Your task to perform on an android device: open a bookmark in the chrome app Image 0: 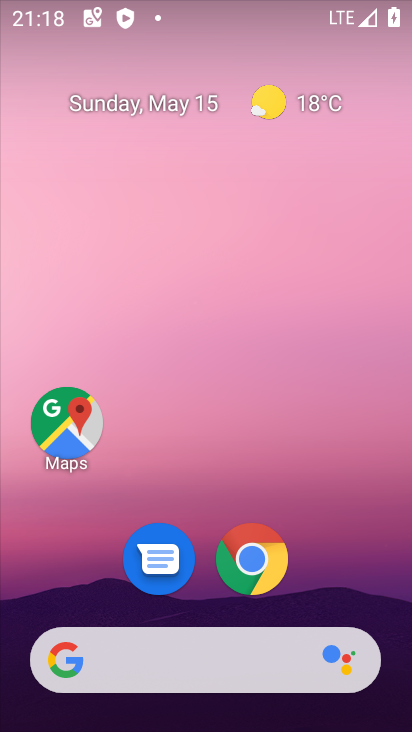
Step 0: click (249, 557)
Your task to perform on an android device: open a bookmark in the chrome app Image 1: 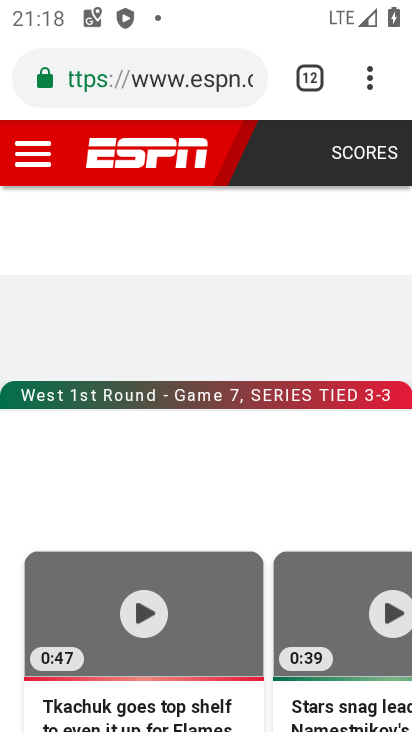
Step 1: click (369, 84)
Your task to perform on an android device: open a bookmark in the chrome app Image 2: 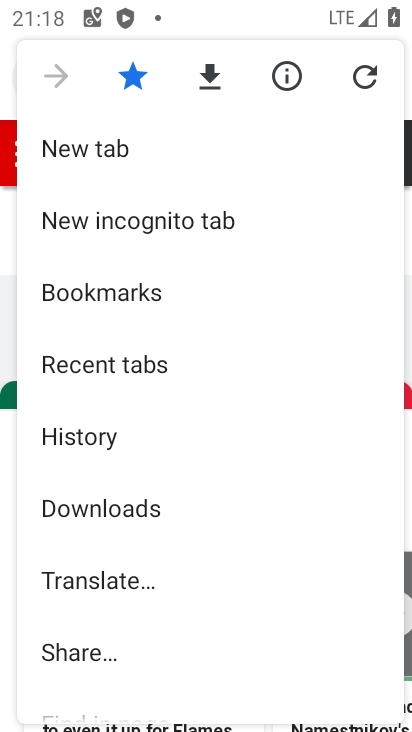
Step 2: click (152, 289)
Your task to perform on an android device: open a bookmark in the chrome app Image 3: 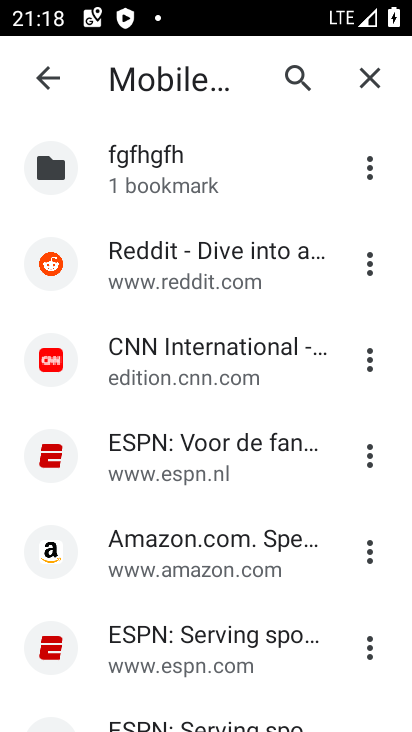
Step 3: task complete